Your task to perform on an android device: turn off smart reply in the gmail app Image 0: 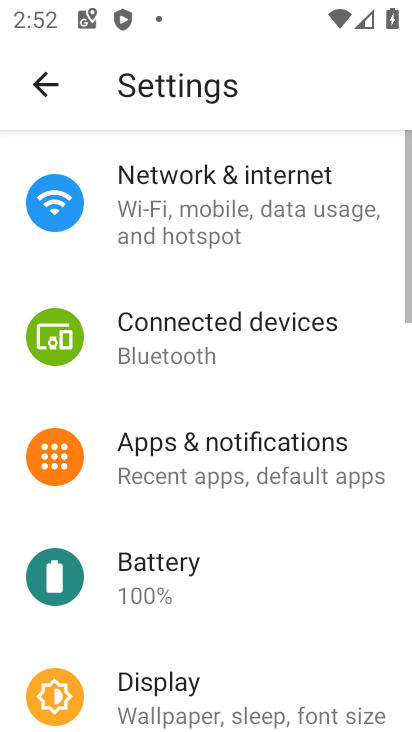
Step 0: press home button
Your task to perform on an android device: turn off smart reply in the gmail app Image 1: 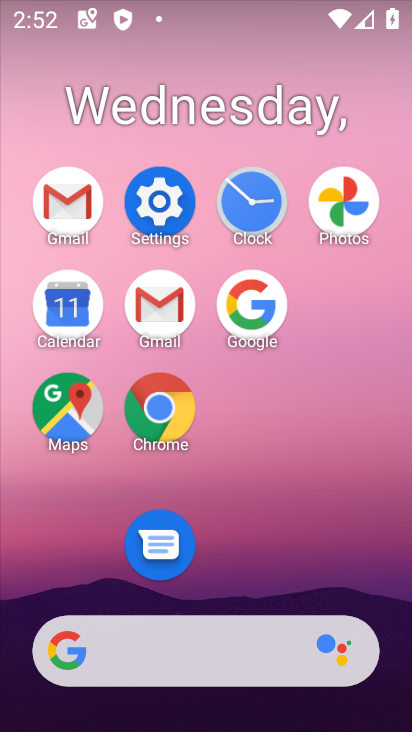
Step 1: click (173, 306)
Your task to perform on an android device: turn off smart reply in the gmail app Image 2: 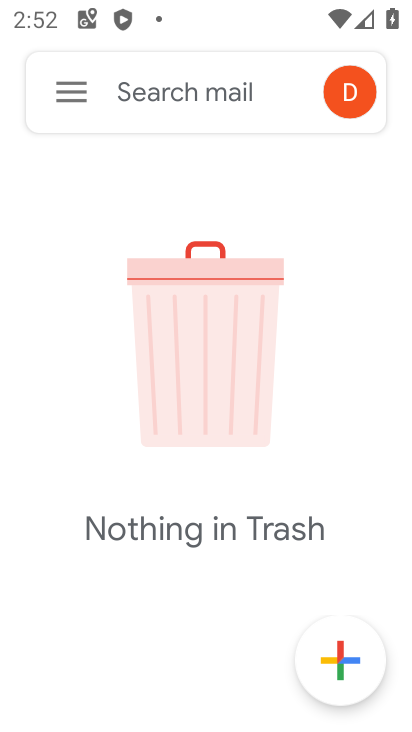
Step 2: click (79, 105)
Your task to perform on an android device: turn off smart reply in the gmail app Image 3: 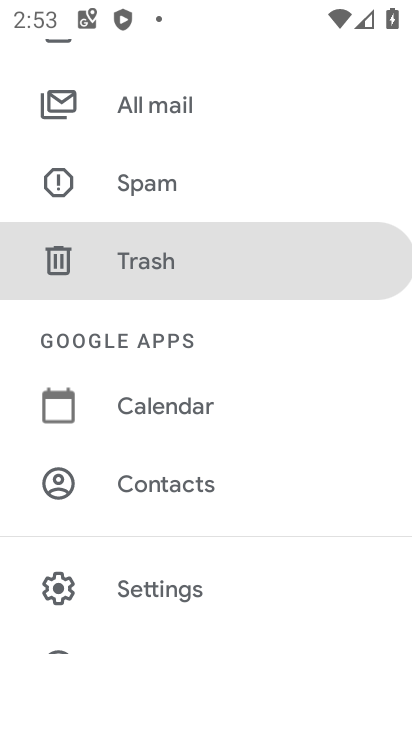
Step 3: click (219, 611)
Your task to perform on an android device: turn off smart reply in the gmail app Image 4: 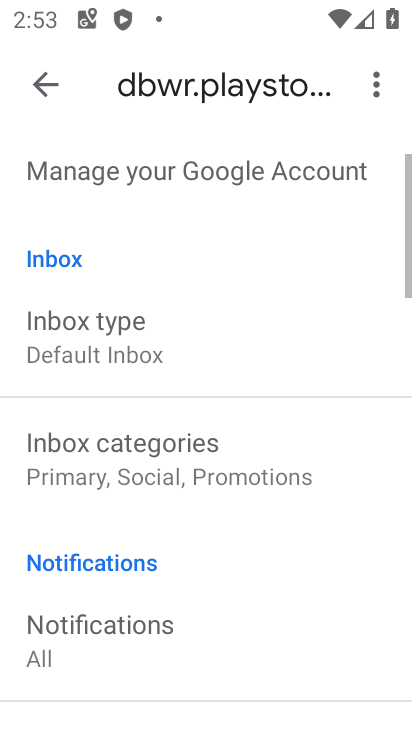
Step 4: drag from (214, 550) to (181, 121)
Your task to perform on an android device: turn off smart reply in the gmail app Image 5: 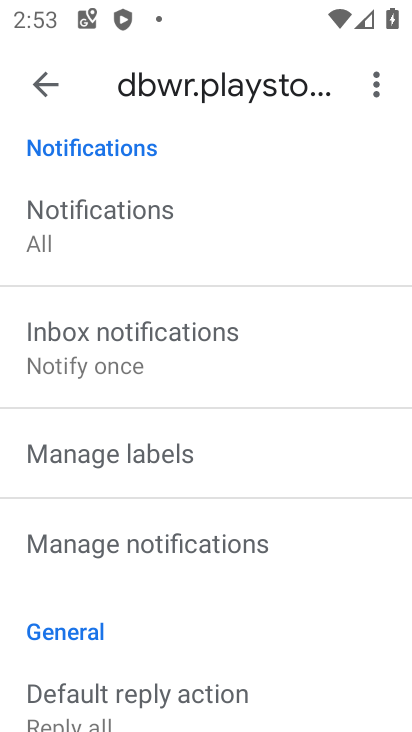
Step 5: drag from (260, 574) to (250, 217)
Your task to perform on an android device: turn off smart reply in the gmail app Image 6: 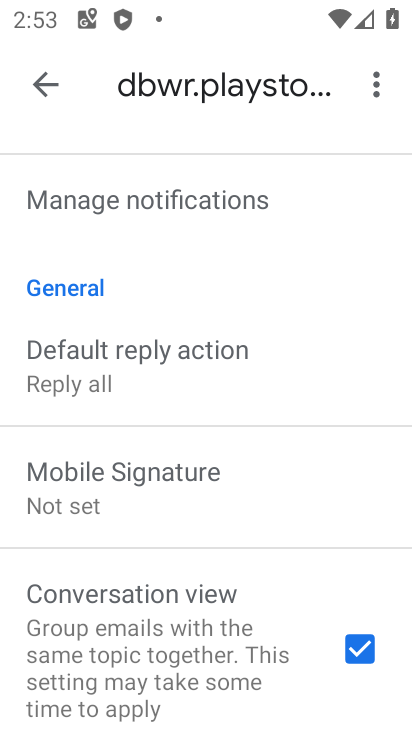
Step 6: drag from (299, 538) to (298, 80)
Your task to perform on an android device: turn off smart reply in the gmail app Image 7: 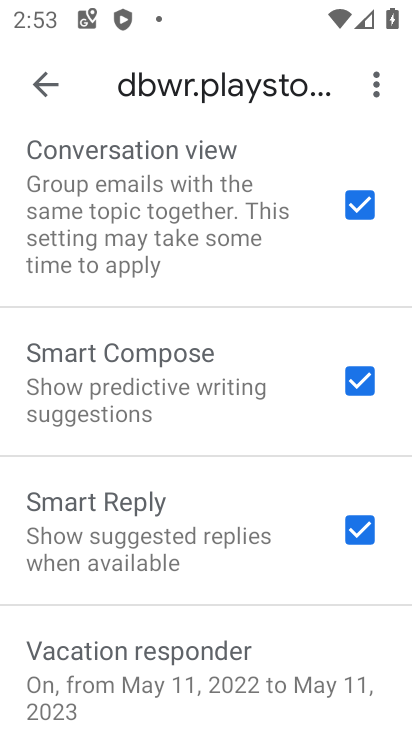
Step 7: click (355, 530)
Your task to perform on an android device: turn off smart reply in the gmail app Image 8: 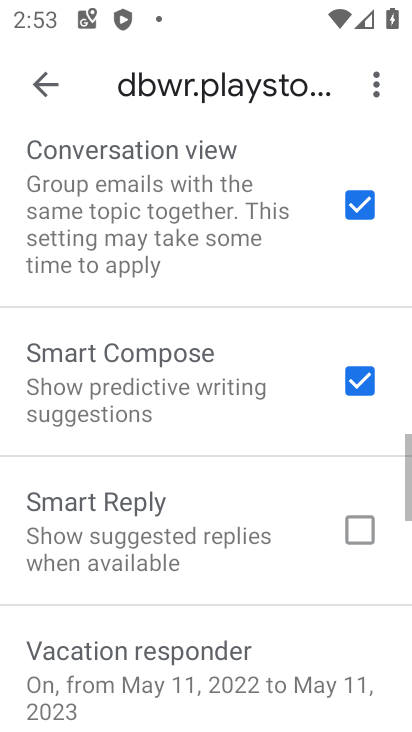
Step 8: task complete